Your task to perform on an android device: turn smart compose on in the gmail app Image 0: 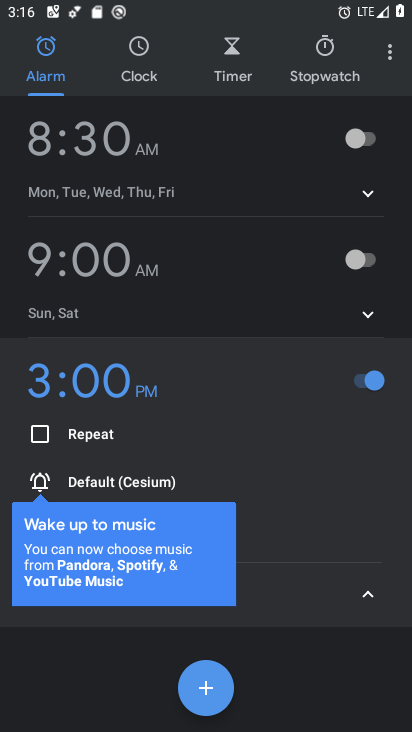
Step 0: press home button
Your task to perform on an android device: turn smart compose on in the gmail app Image 1: 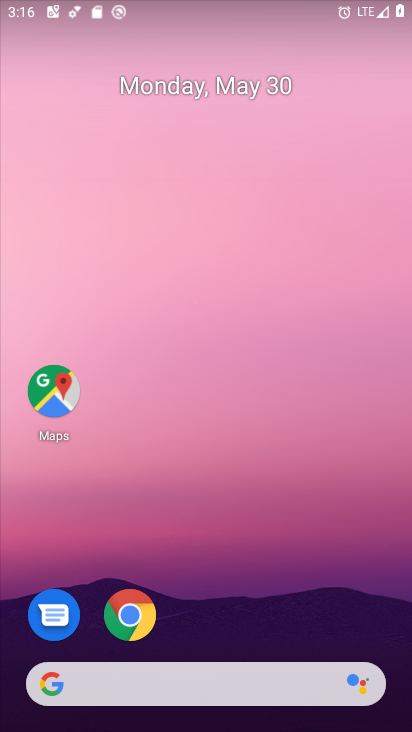
Step 1: drag from (232, 599) to (246, 36)
Your task to perform on an android device: turn smart compose on in the gmail app Image 2: 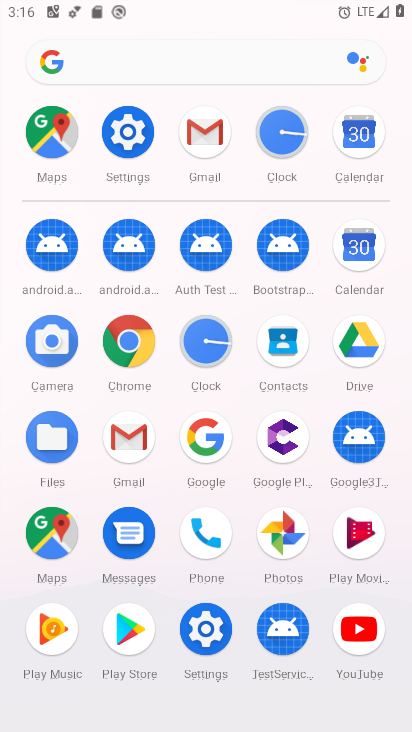
Step 2: click (209, 128)
Your task to perform on an android device: turn smart compose on in the gmail app Image 3: 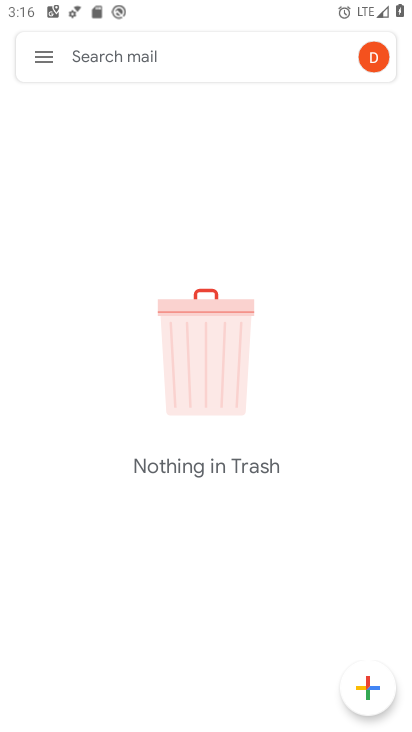
Step 3: click (37, 57)
Your task to perform on an android device: turn smart compose on in the gmail app Image 4: 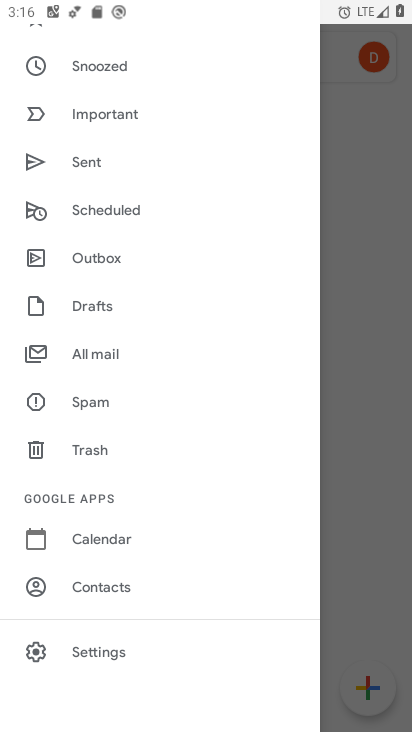
Step 4: click (133, 655)
Your task to perform on an android device: turn smart compose on in the gmail app Image 5: 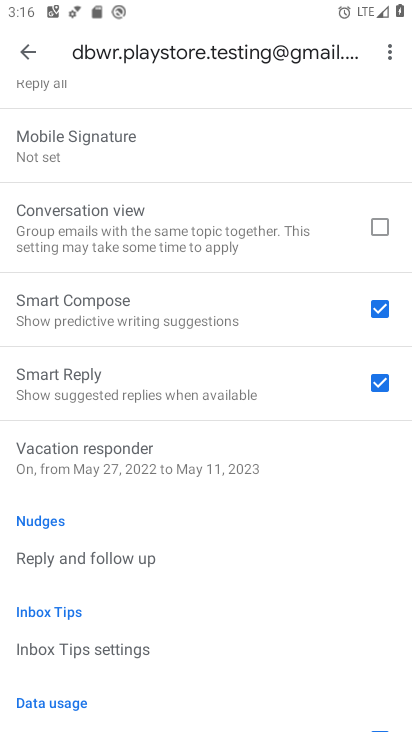
Step 5: task complete